Your task to perform on an android device: Is it going to rain today? Image 0: 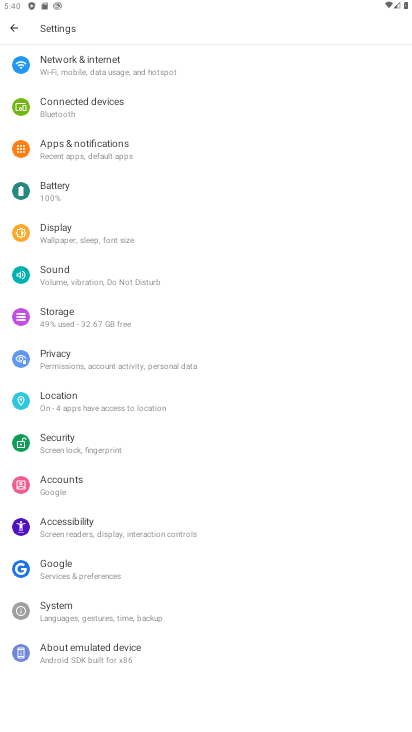
Step 0: press home button
Your task to perform on an android device: Is it going to rain today? Image 1: 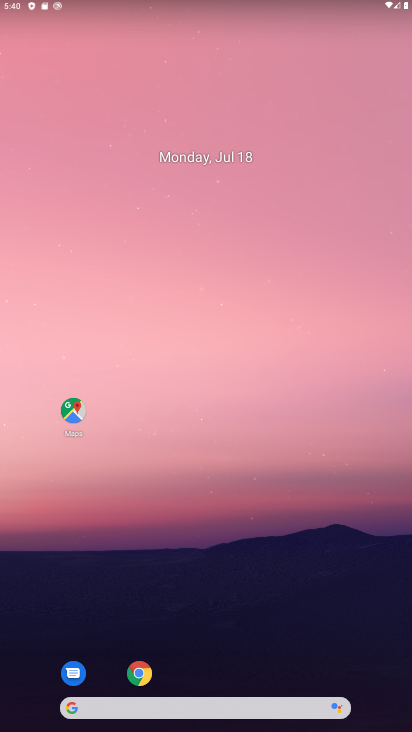
Step 1: click (168, 702)
Your task to perform on an android device: Is it going to rain today? Image 2: 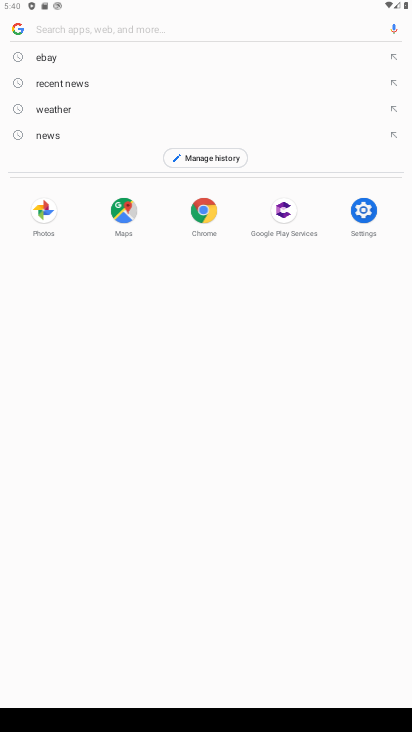
Step 2: click (39, 28)
Your task to perform on an android device: Is it going to rain today? Image 3: 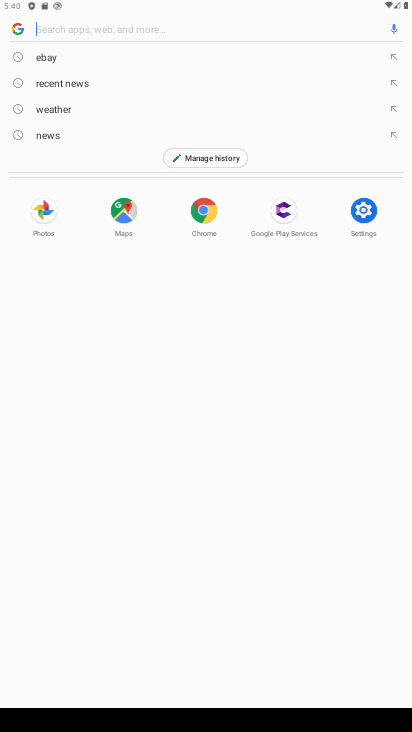
Step 3: press enter
Your task to perform on an android device: Is it going to rain today? Image 4: 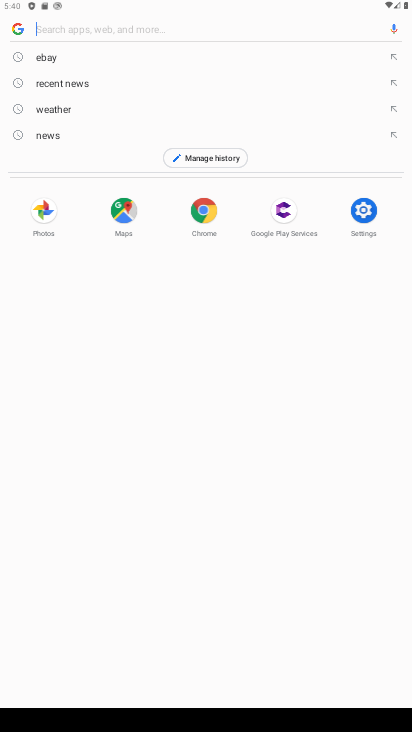
Step 4: type "Is it going to rain today?"
Your task to perform on an android device: Is it going to rain today? Image 5: 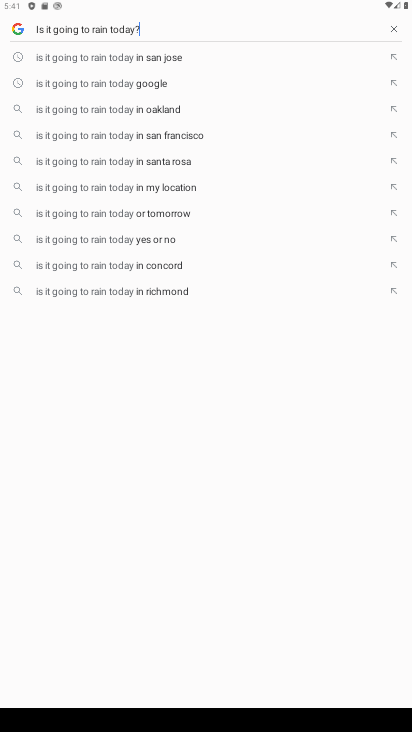
Step 5: press enter
Your task to perform on an android device: Is it going to rain today? Image 6: 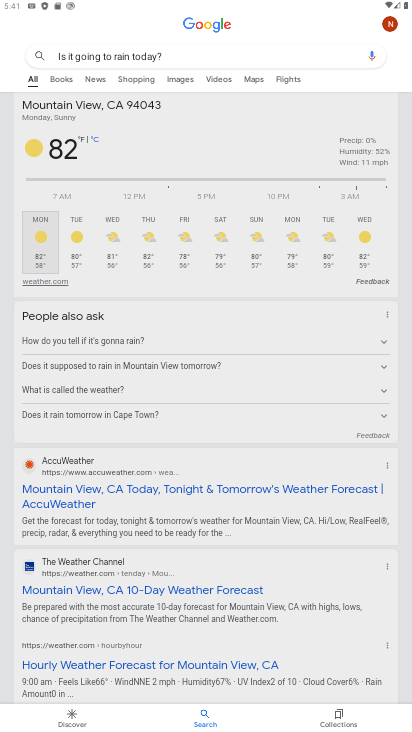
Step 6: task complete